Your task to perform on an android device: Do I have any events tomorrow? Image 0: 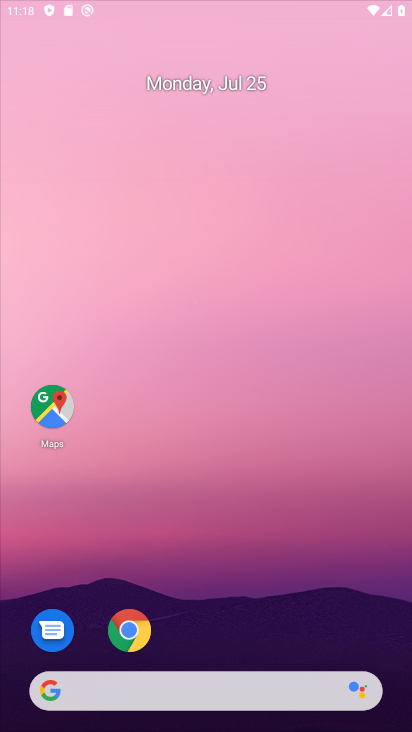
Step 0: drag from (260, 614) to (260, 428)
Your task to perform on an android device: Do I have any events tomorrow? Image 1: 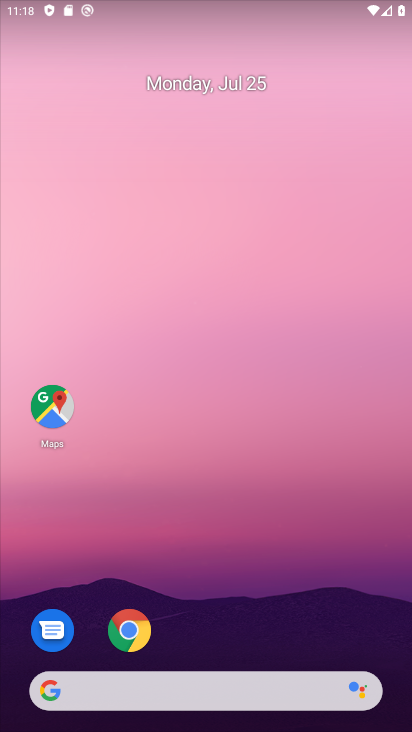
Step 1: drag from (237, 566) to (257, 83)
Your task to perform on an android device: Do I have any events tomorrow? Image 2: 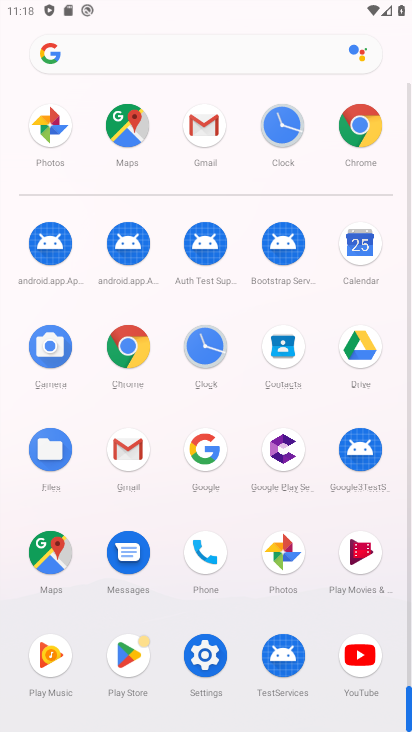
Step 2: click (371, 276)
Your task to perform on an android device: Do I have any events tomorrow? Image 3: 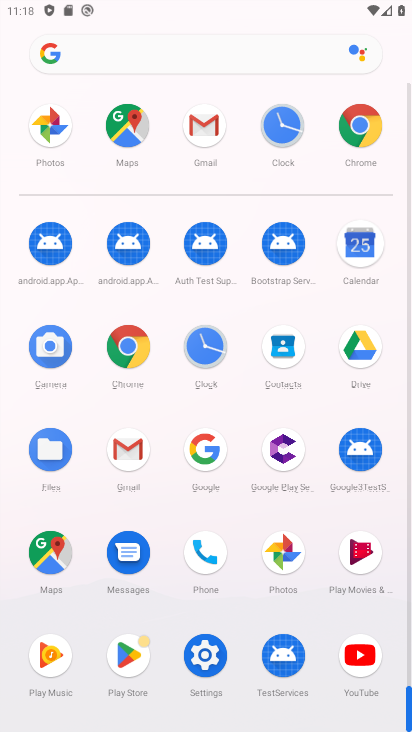
Step 3: click (371, 276)
Your task to perform on an android device: Do I have any events tomorrow? Image 4: 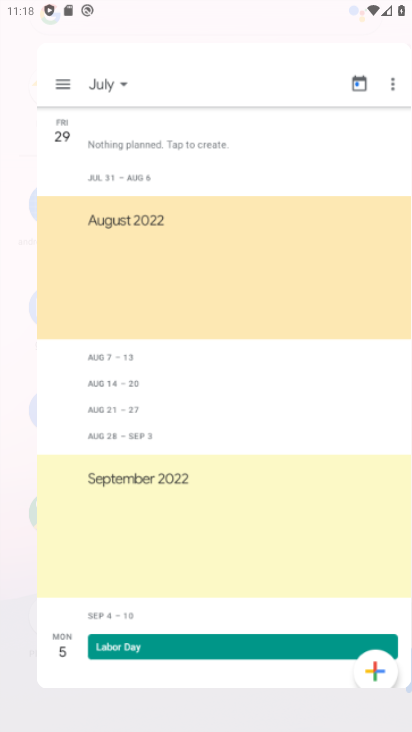
Step 4: click (371, 276)
Your task to perform on an android device: Do I have any events tomorrow? Image 5: 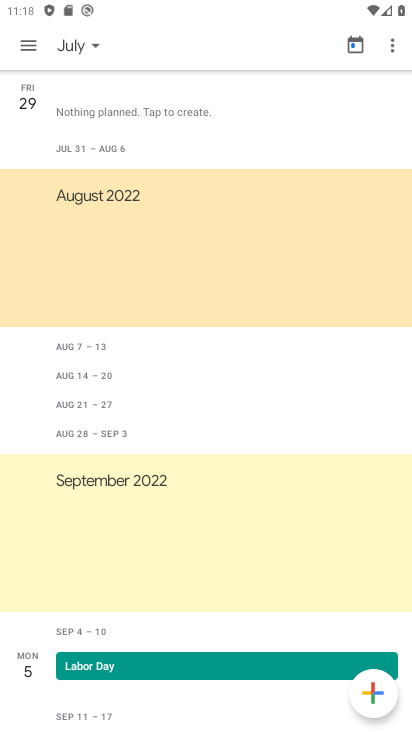
Step 5: click (87, 43)
Your task to perform on an android device: Do I have any events tomorrow? Image 6: 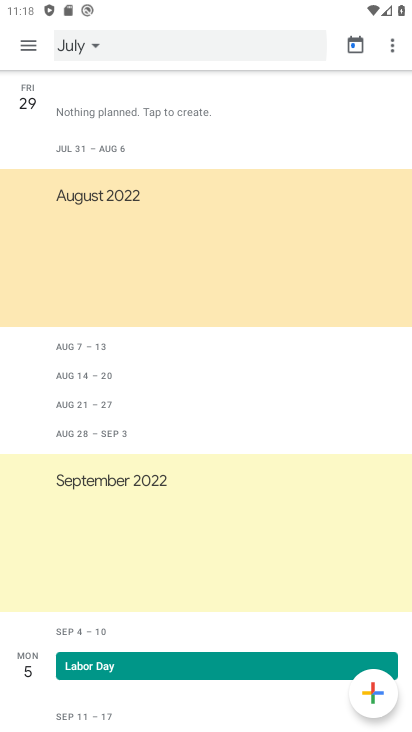
Step 6: click (88, 42)
Your task to perform on an android device: Do I have any events tomorrow? Image 7: 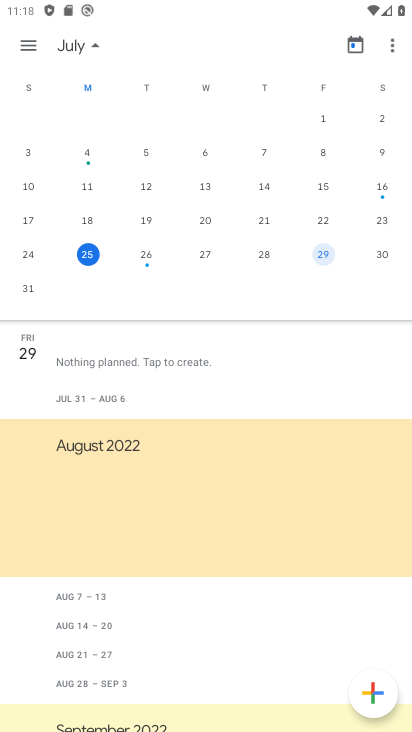
Step 7: click (197, 245)
Your task to perform on an android device: Do I have any events tomorrow? Image 8: 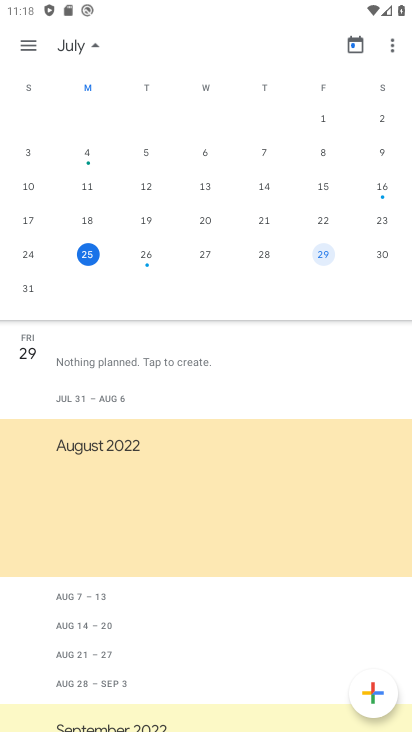
Step 8: click (198, 245)
Your task to perform on an android device: Do I have any events tomorrow? Image 9: 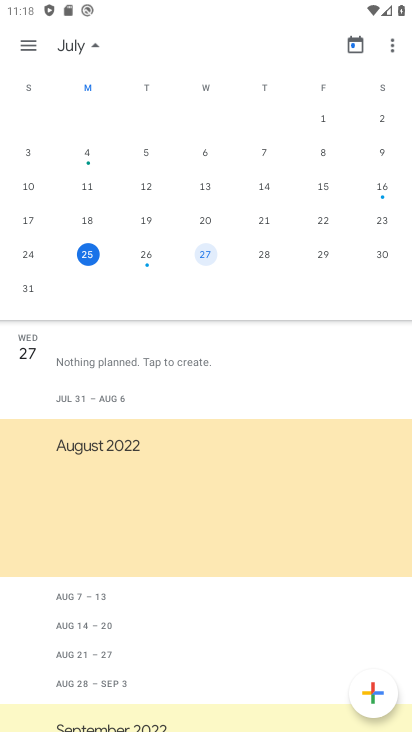
Step 9: click (199, 245)
Your task to perform on an android device: Do I have any events tomorrow? Image 10: 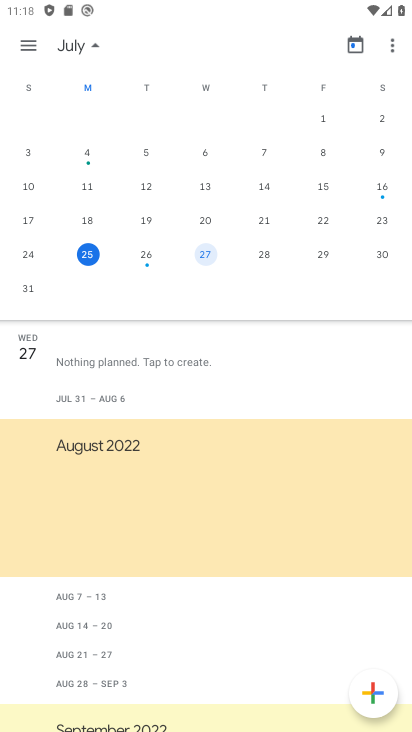
Step 10: click (199, 245)
Your task to perform on an android device: Do I have any events tomorrow? Image 11: 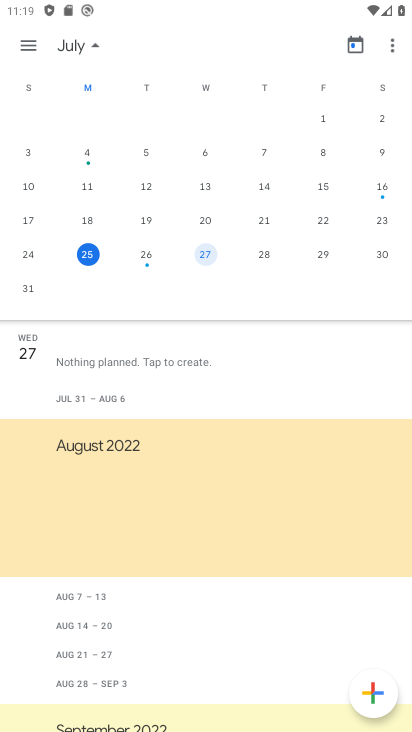
Step 11: task complete